Your task to perform on an android device: change the upload size in google photos Image 0: 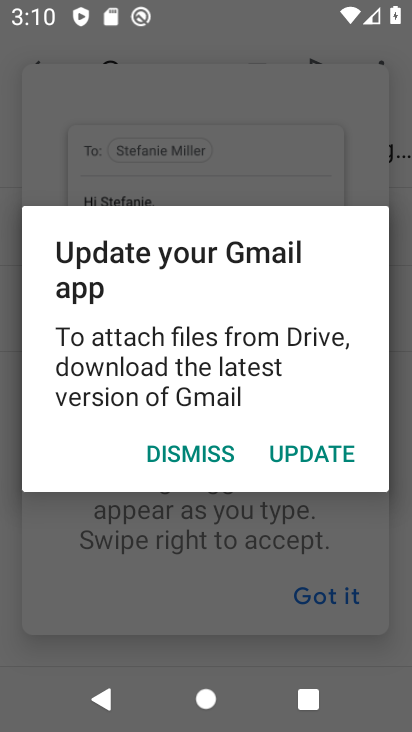
Step 0: press home button
Your task to perform on an android device: change the upload size in google photos Image 1: 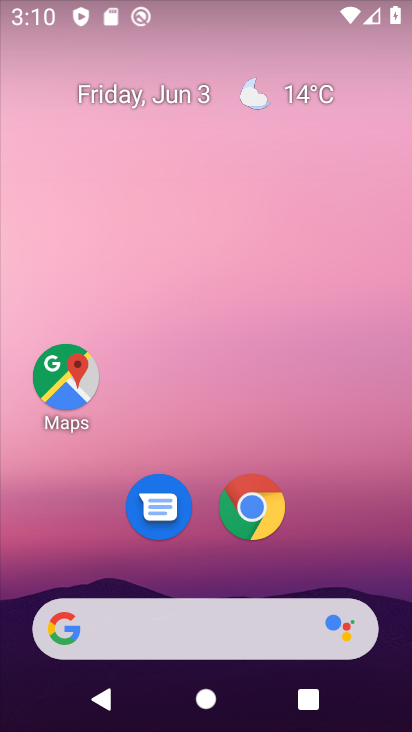
Step 1: drag from (188, 557) to (7, 593)
Your task to perform on an android device: change the upload size in google photos Image 2: 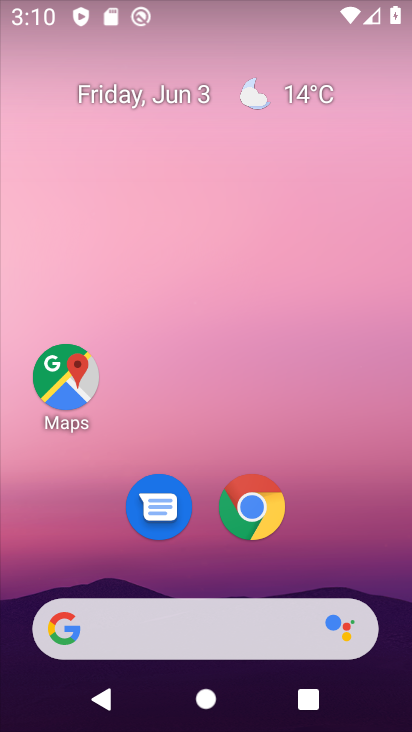
Step 2: drag from (252, 283) to (277, 150)
Your task to perform on an android device: change the upload size in google photos Image 3: 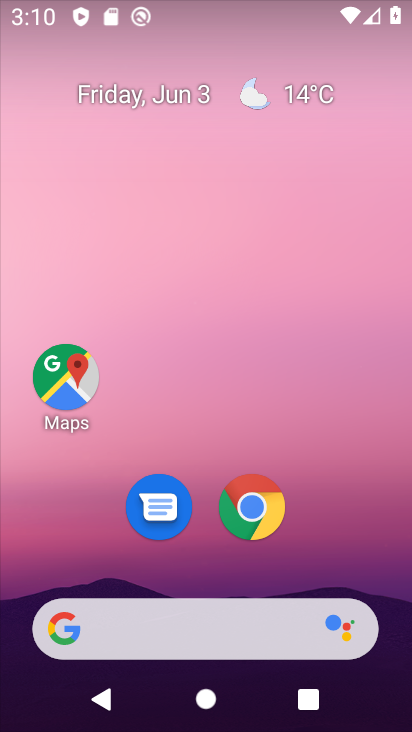
Step 3: drag from (181, 557) to (232, 202)
Your task to perform on an android device: change the upload size in google photos Image 4: 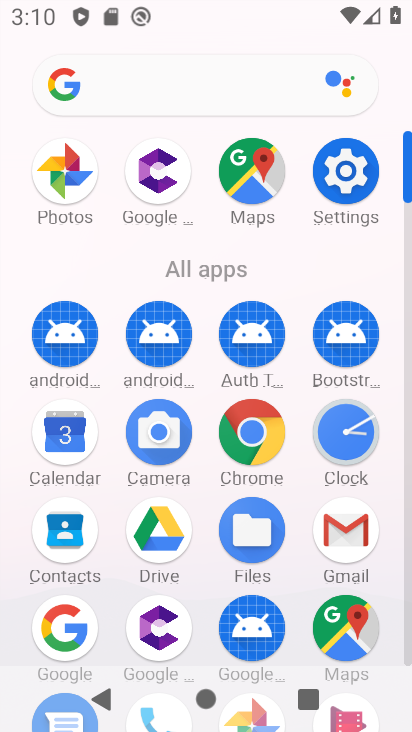
Step 4: drag from (206, 599) to (246, 340)
Your task to perform on an android device: change the upload size in google photos Image 5: 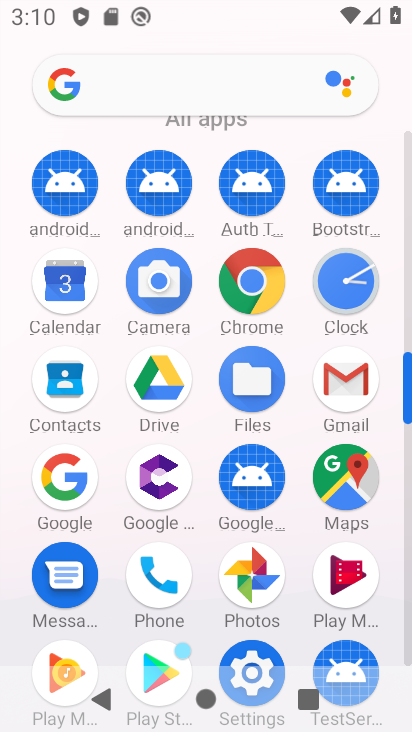
Step 5: click (252, 574)
Your task to perform on an android device: change the upload size in google photos Image 6: 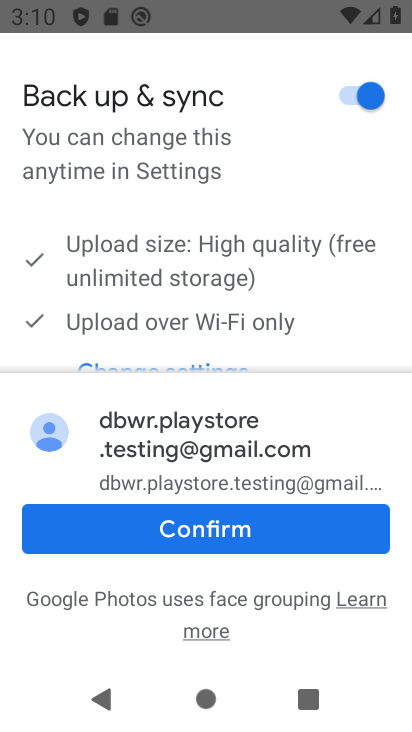
Step 6: click (234, 536)
Your task to perform on an android device: change the upload size in google photos Image 7: 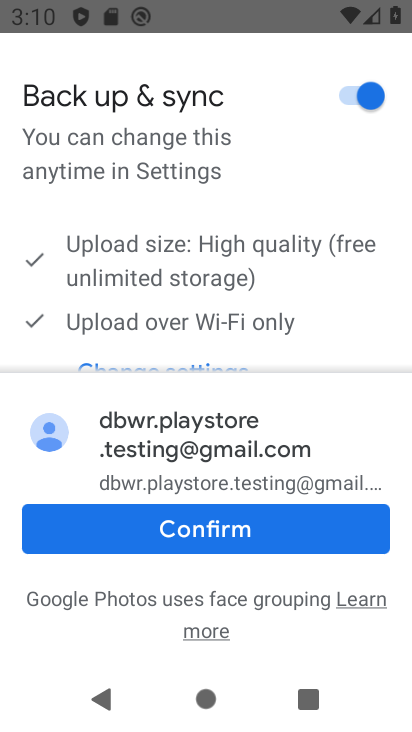
Step 7: click (203, 540)
Your task to perform on an android device: change the upload size in google photos Image 8: 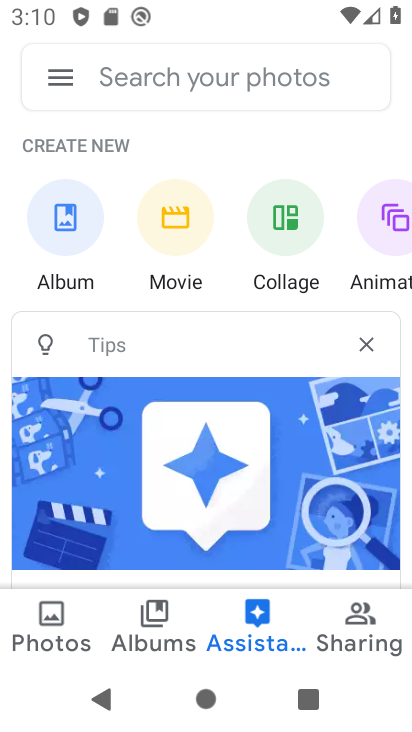
Step 8: click (56, 84)
Your task to perform on an android device: change the upload size in google photos Image 9: 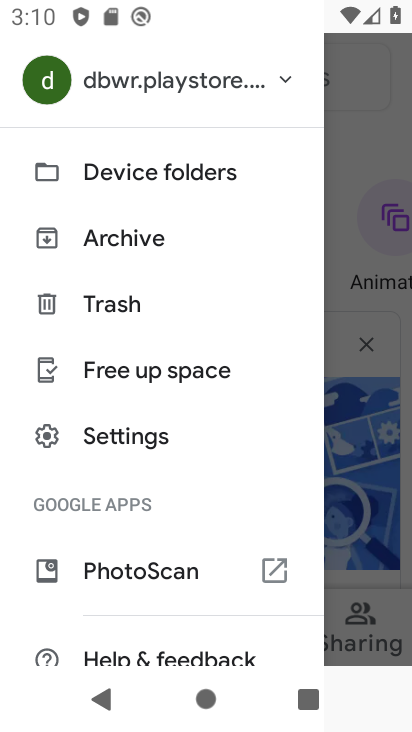
Step 9: click (104, 444)
Your task to perform on an android device: change the upload size in google photos Image 10: 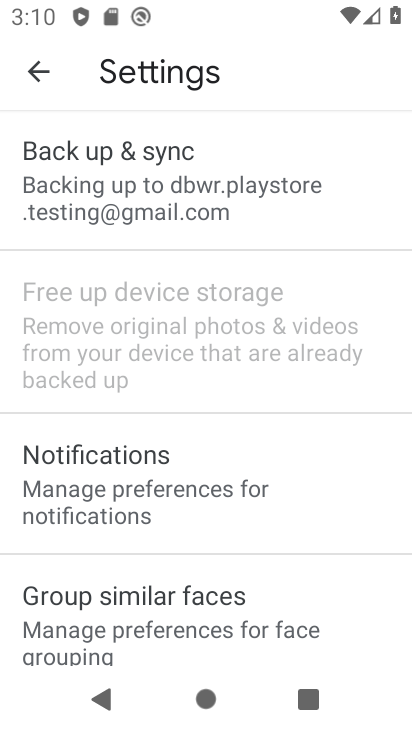
Step 10: click (178, 217)
Your task to perform on an android device: change the upload size in google photos Image 11: 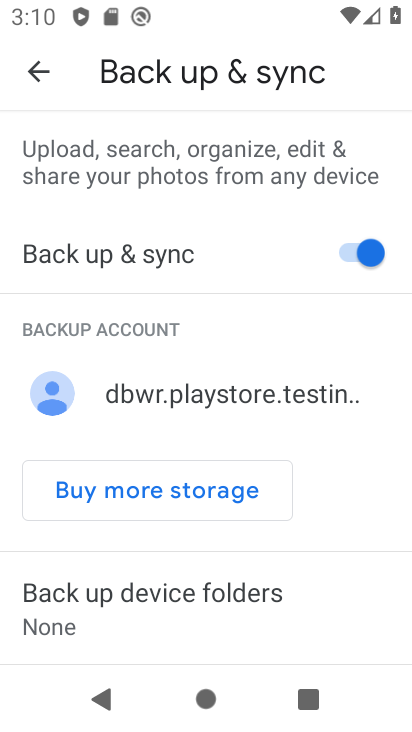
Step 11: drag from (104, 578) to (128, 324)
Your task to perform on an android device: change the upload size in google photos Image 12: 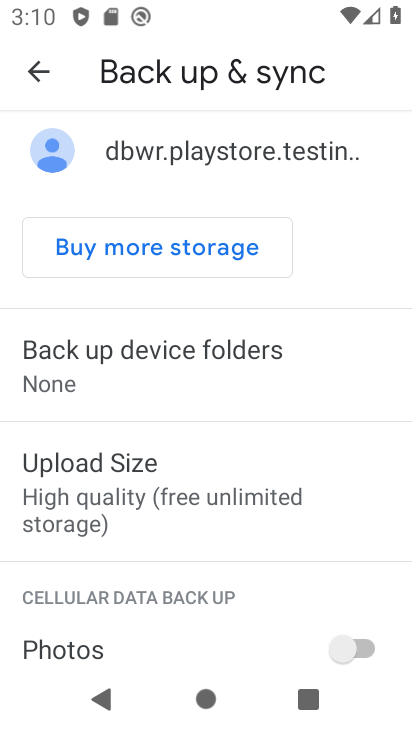
Step 12: click (97, 501)
Your task to perform on an android device: change the upload size in google photos Image 13: 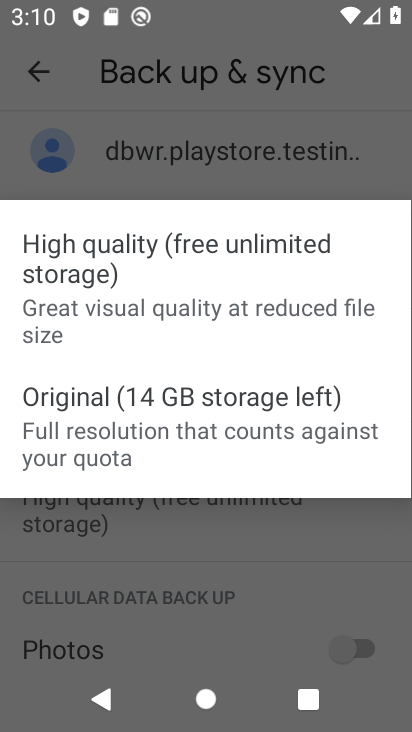
Step 13: click (107, 442)
Your task to perform on an android device: change the upload size in google photos Image 14: 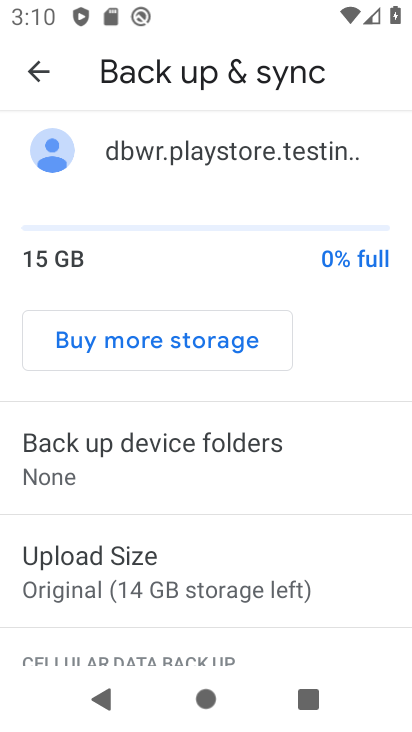
Step 14: task complete